Your task to perform on an android device: read, delete, or share a saved page in the chrome app Image 0: 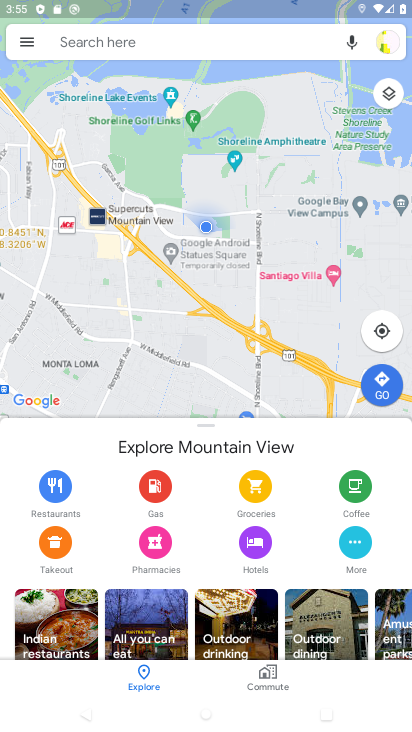
Step 0: press home button
Your task to perform on an android device: read, delete, or share a saved page in the chrome app Image 1: 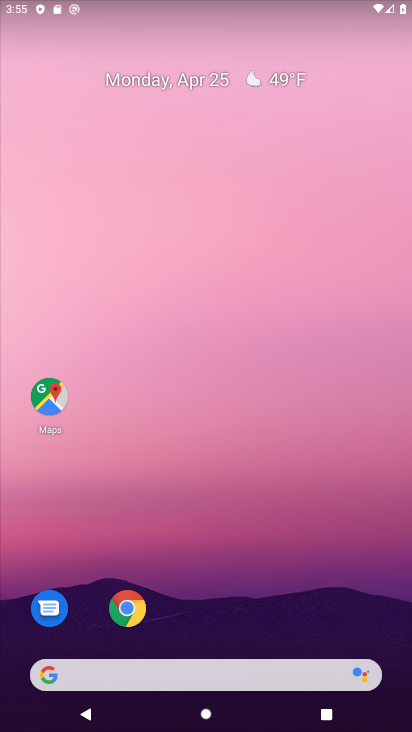
Step 1: click (123, 611)
Your task to perform on an android device: read, delete, or share a saved page in the chrome app Image 2: 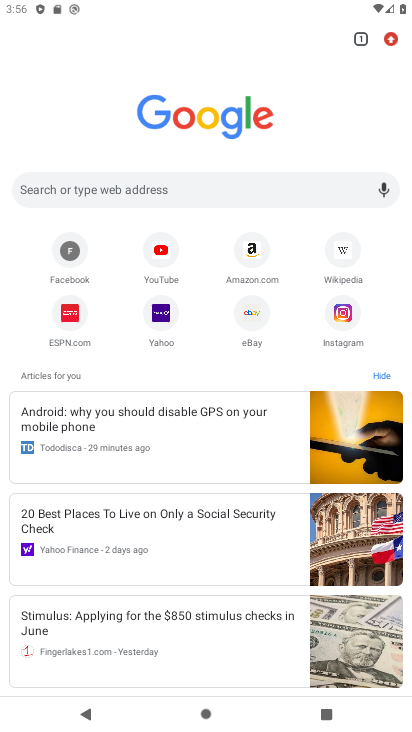
Step 2: click (387, 34)
Your task to perform on an android device: read, delete, or share a saved page in the chrome app Image 3: 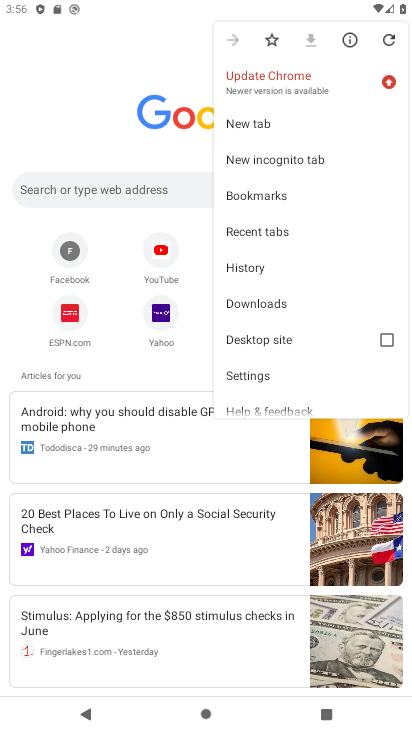
Step 3: click (264, 302)
Your task to perform on an android device: read, delete, or share a saved page in the chrome app Image 4: 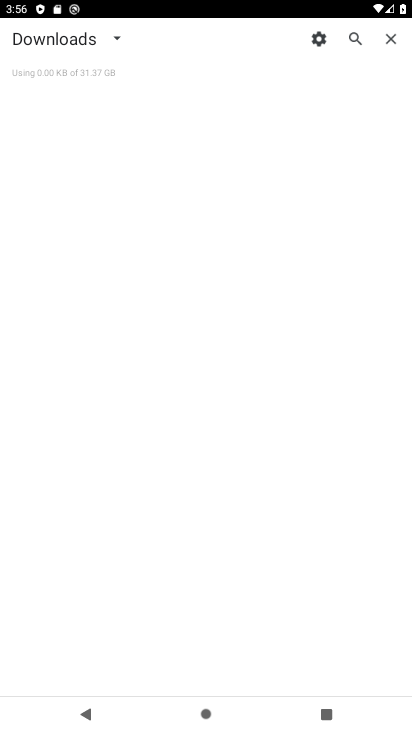
Step 4: click (117, 37)
Your task to perform on an android device: read, delete, or share a saved page in the chrome app Image 5: 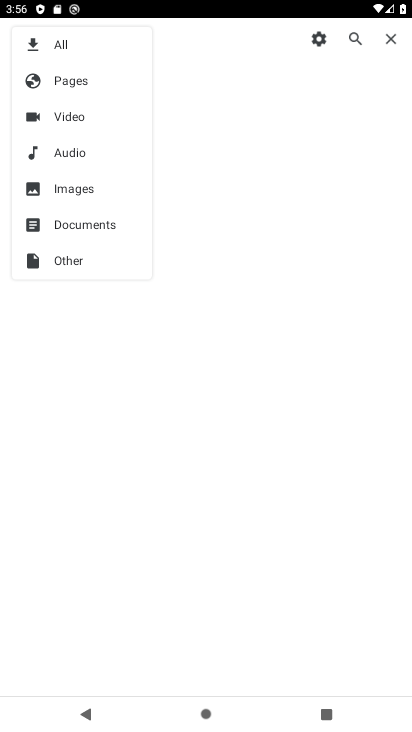
Step 5: click (88, 77)
Your task to perform on an android device: read, delete, or share a saved page in the chrome app Image 6: 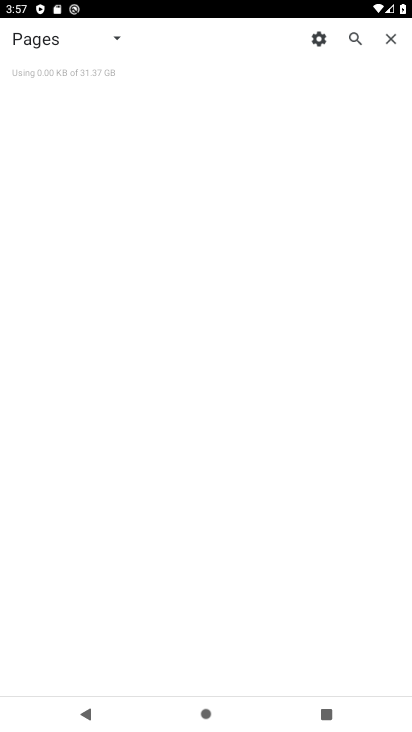
Step 6: task complete